Your task to perform on an android device: Search for vegetarian restaurants on Maps Image 0: 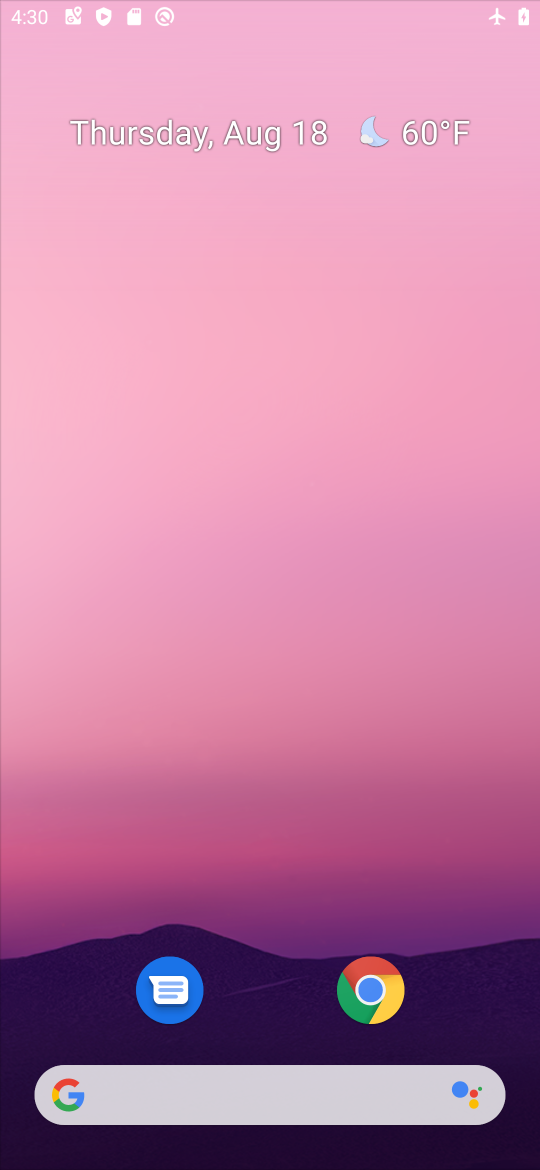
Step 0: press home button
Your task to perform on an android device: Search for vegetarian restaurants on Maps Image 1: 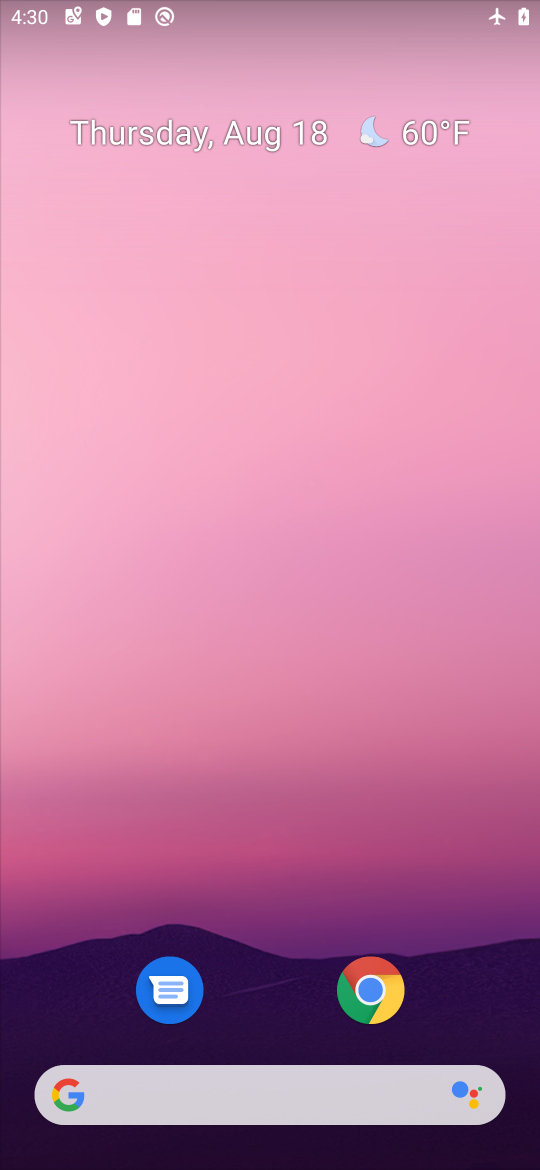
Step 1: press home button
Your task to perform on an android device: Search for vegetarian restaurants on Maps Image 2: 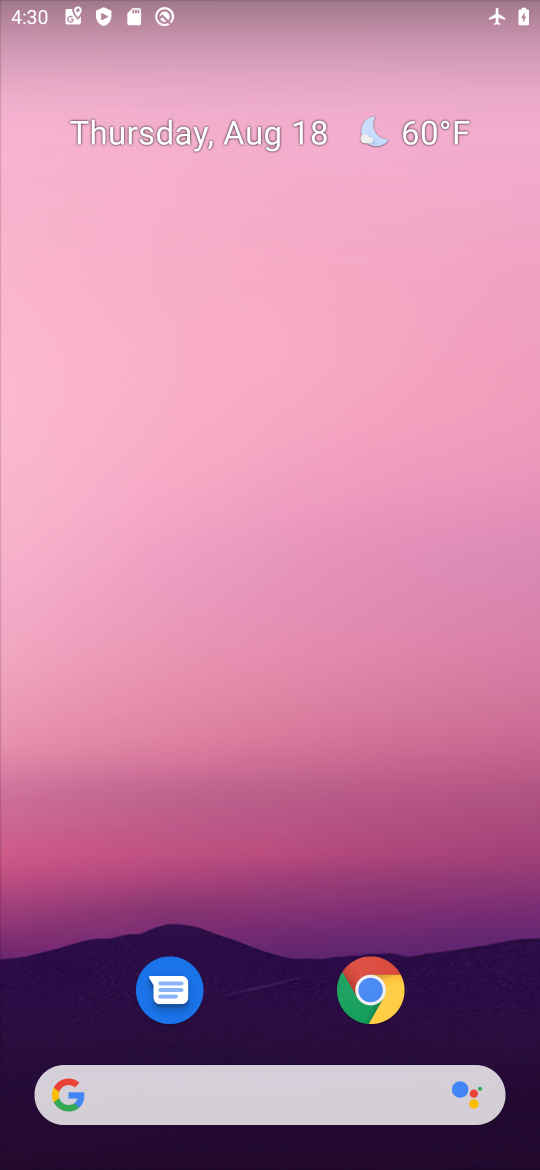
Step 2: drag from (268, 945) to (439, 10)
Your task to perform on an android device: Search for vegetarian restaurants on Maps Image 3: 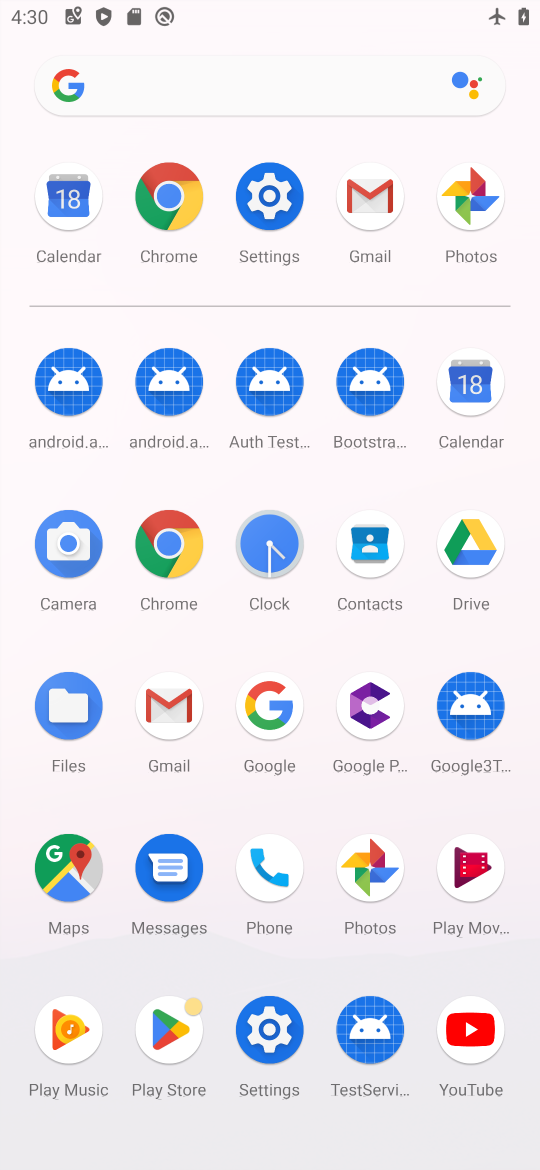
Step 3: click (72, 871)
Your task to perform on an android device: Search for vegetarian restaurants on Maps Image 4: 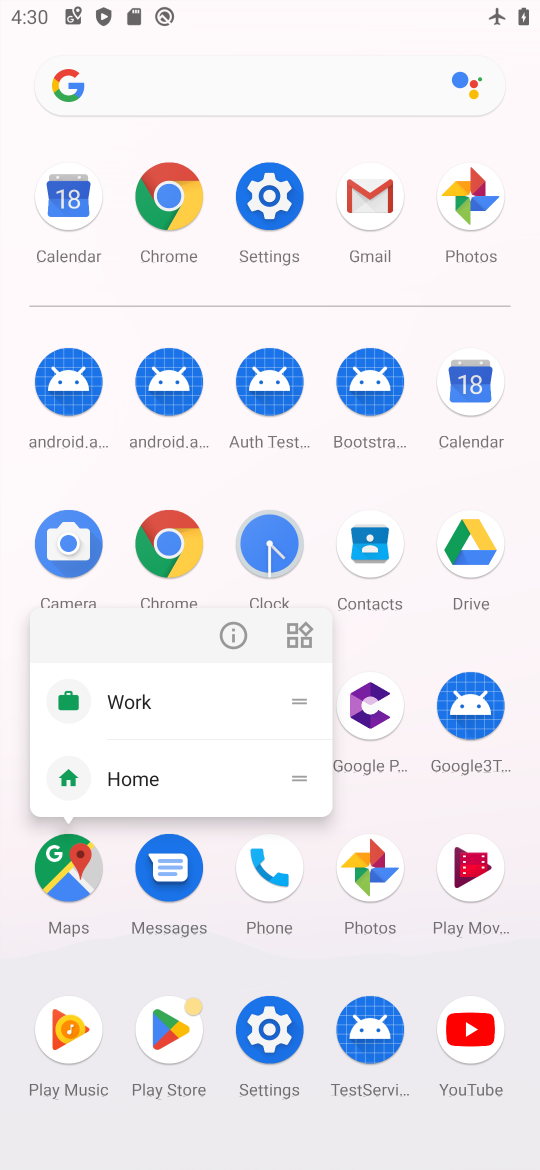
Step 4: click (72, 871)
Your task to perform on an android device: Search for vegetarian restaurants on Maps Image 5: 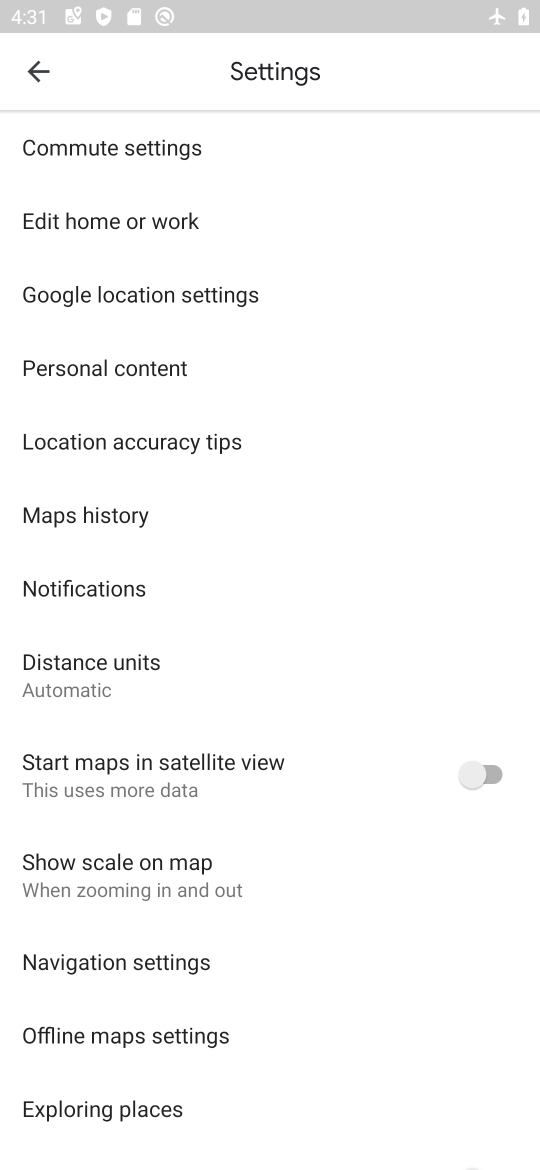
Step 5: press back button
Your task to perform on an android device: Search for vegetarian restaurants on Maps Image 6: 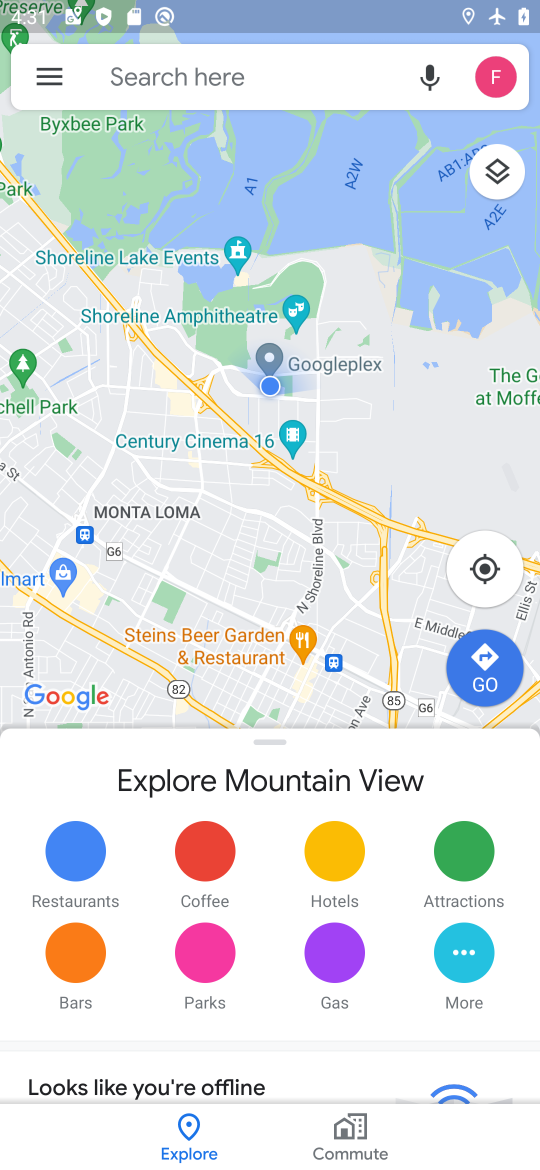
Step 6: click (265, 81)
Your task to perform on an android device: Search for vegetarian restaurants on Maps Image 7: 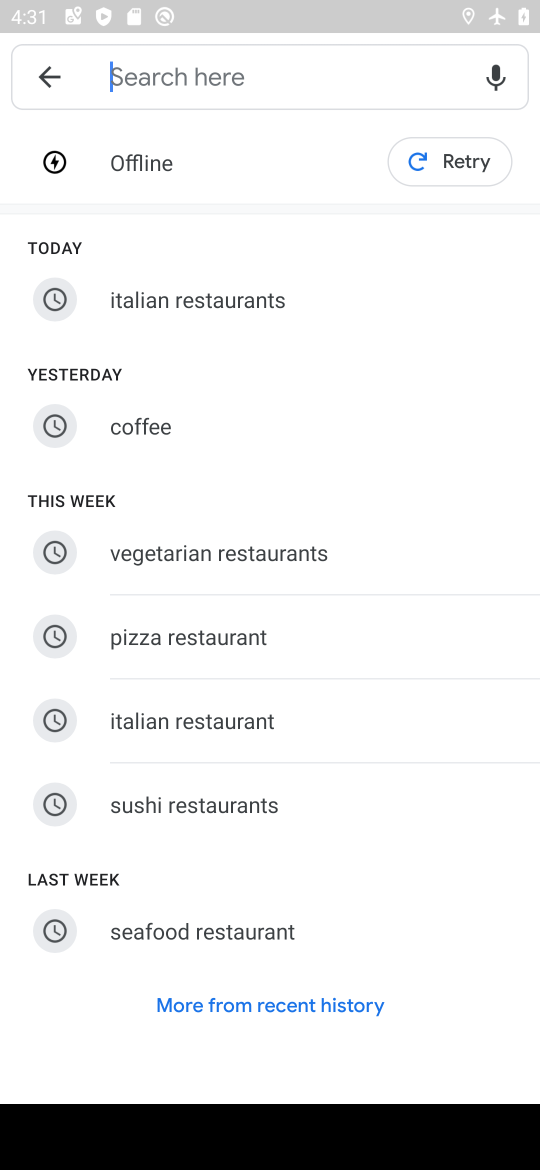
Step 7: click (198, 559)
Your task to perform on an android device: Search for vegetarian restaurants on Maps Image 8: 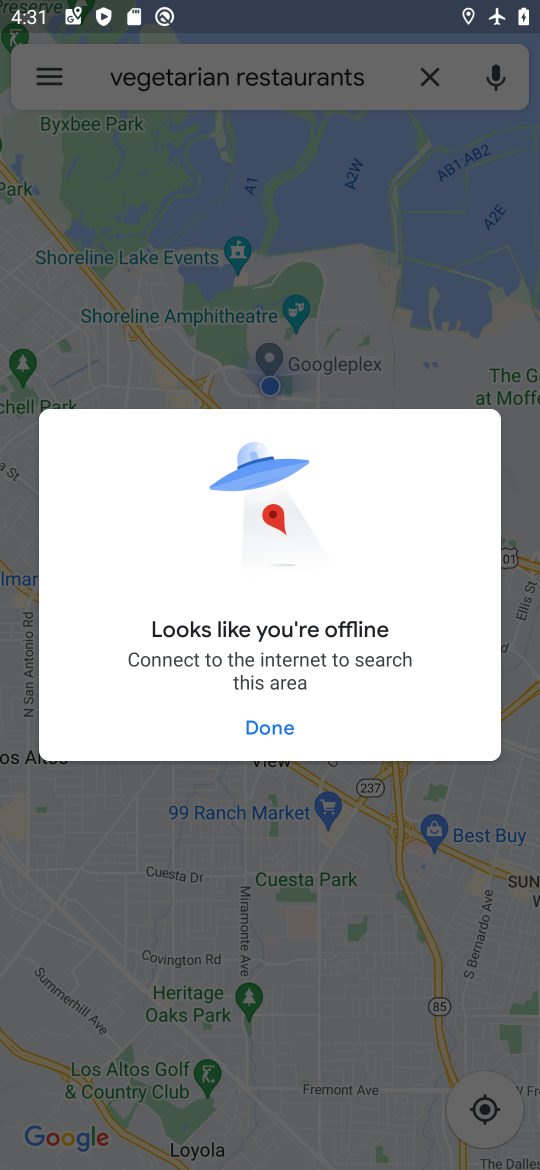
Step 8: task complete